Your task to perform on an android device: turn pop-ups off in chrome Image 0: 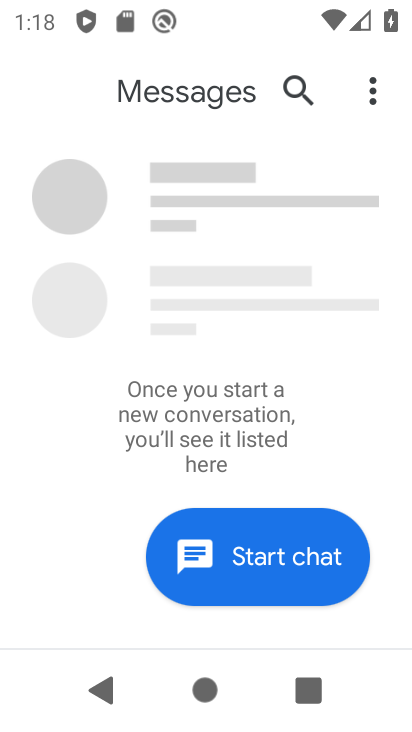
Step 0: press home button
Your task to perform on an android device: turn pop-ups off in chrome Image 1: 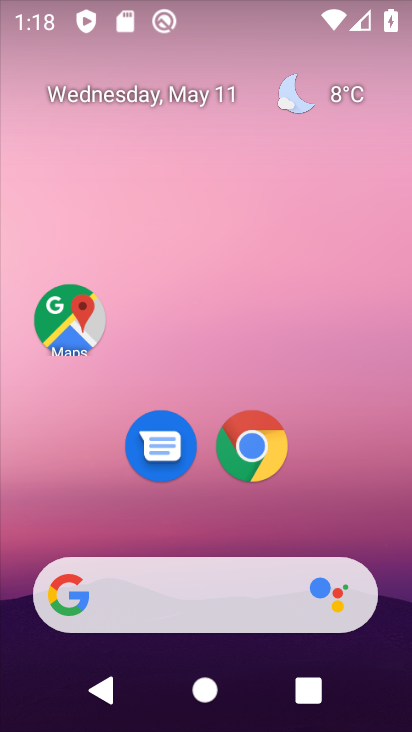
Step 1: drag from (383, 512) to (323, 101)
Your task to perform on an android device: turn pop-ups off in chrome Image 2: 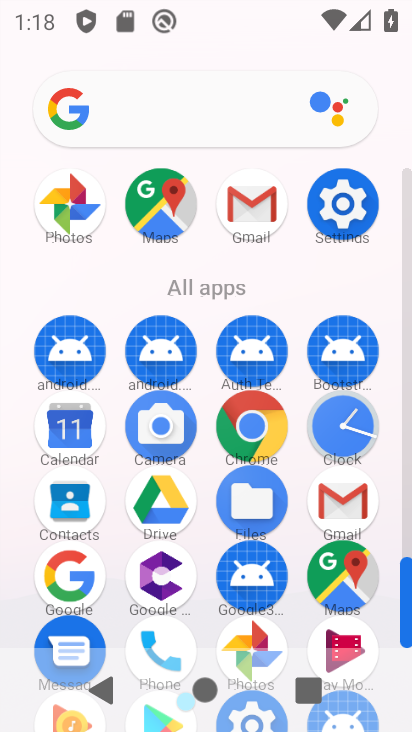
Step 2: click (240, 439)
Your task to perform on an android device: turn pop-ups off in chrome Image 3: 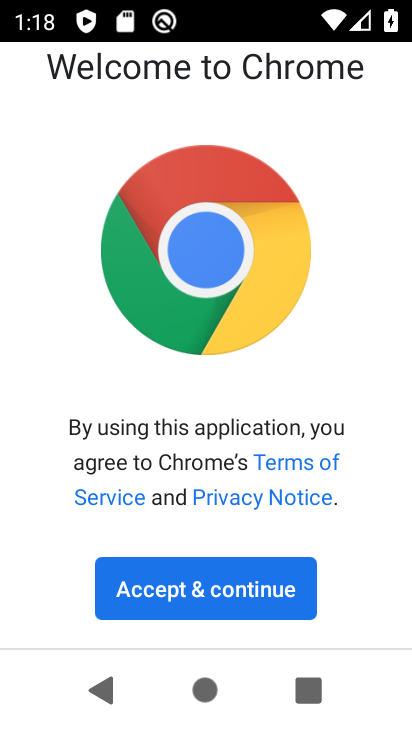
Step 3: click (211, 585)
Your task to perform on an android device: turn pop-ups off in chrome Image 4: 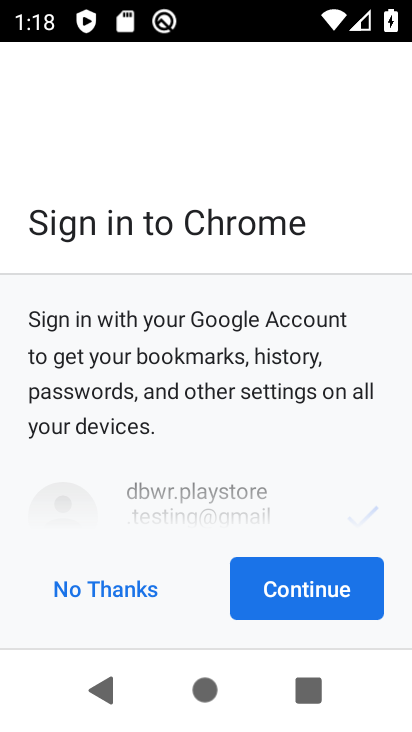
Step 4: click (273, 591)
Your task to perform on an android device: turn pop-ups off in chrome Image 5: 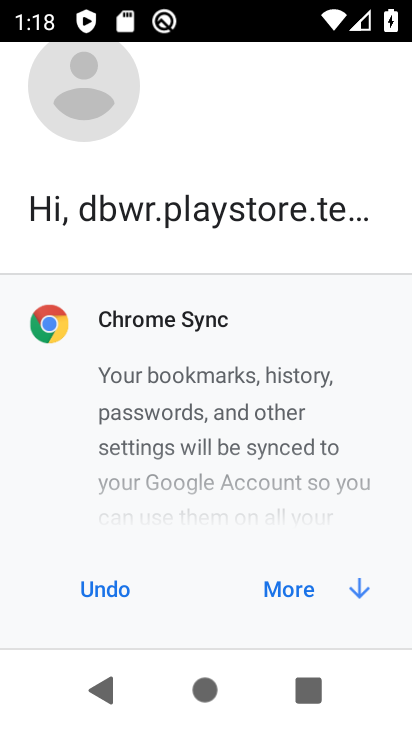
Step 5: click (326, 588)
Your task to perform on an android device: turn pop-ups off in chrome Image 6: 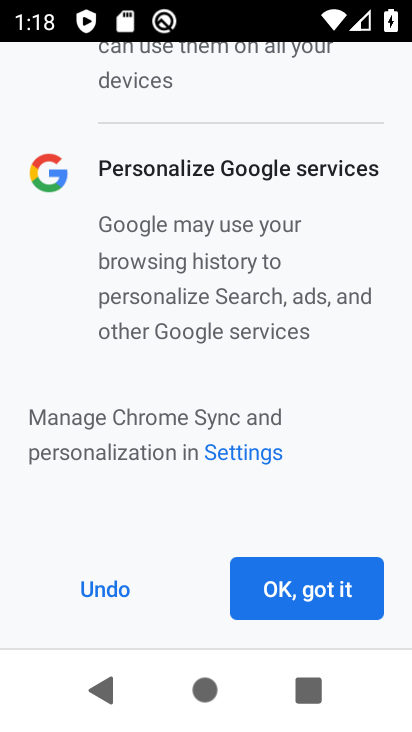
Step 6: click (326, 588)
Your task to perform on an android device: turn pop-ups off in chrome Image 7: 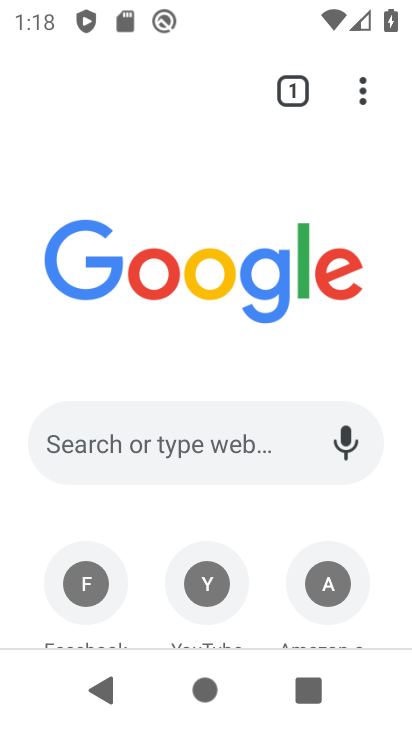
Step 7: drag from (364, 105) to (246, 478)
Your task to perform on an android device: turn pop-ups off in chrome Image 8: 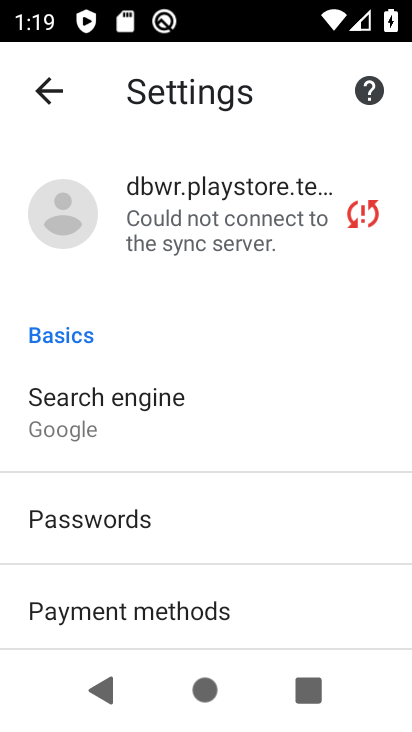
Step 8: drag from (280, 553) to (274, 311)
Your task to perform on an android device: turn pop-ups off in chrome Image 9: 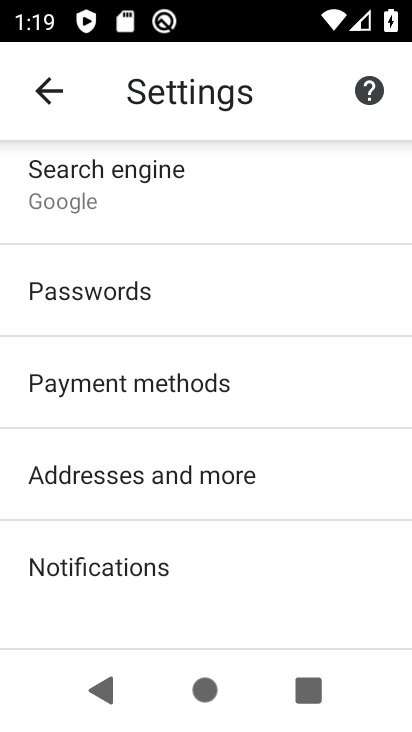
Step 9: drag from (283, 563) to (280, 304)
Your task to perform on an android device: turn pop-ups off in chrome Image 10: 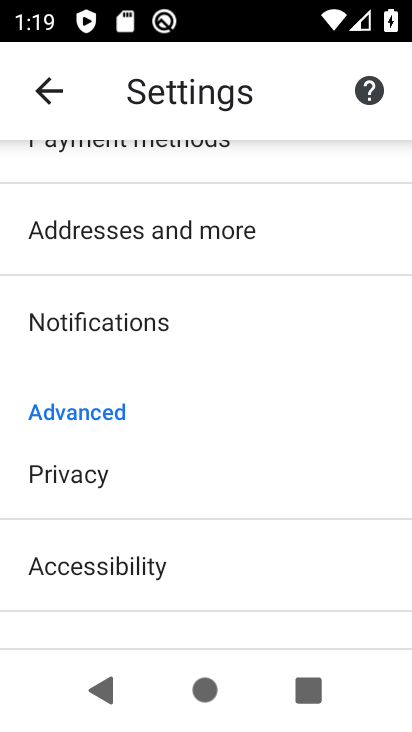
Step 10: drag from (250, 550) to (287, 273)
Your task to perform on an android device: turn pop-ups off in chrome Image 11: 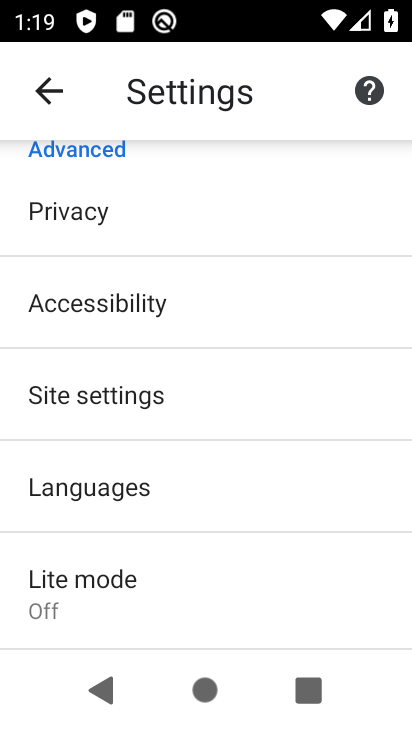
Step 11: click (236, 405)
Your task to perform on an android device: turn pop-ups off in chrome Image 12: 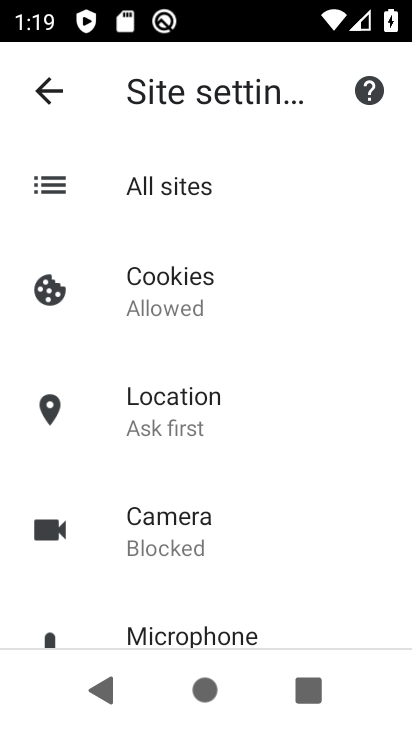
Step 12: drag from (292, 599) to (300, 275)
Your task to perform on an android device: turn pop-ups off in chrome Image 13: 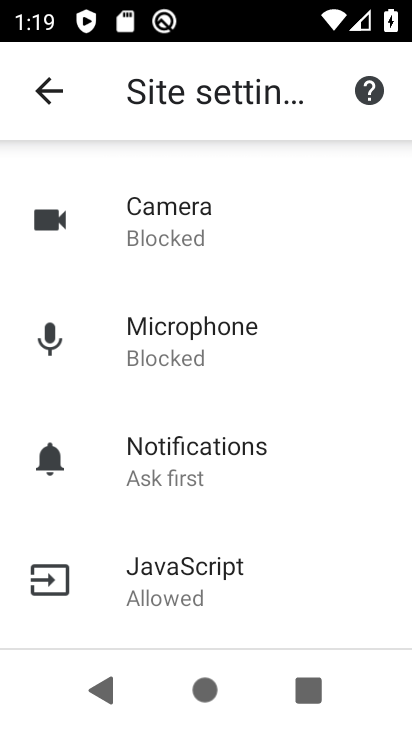
Step 13: drag from (304, 544) to (297, 227)
Your task to perform on an android device: turn pop-ups off in chrome Image 14: 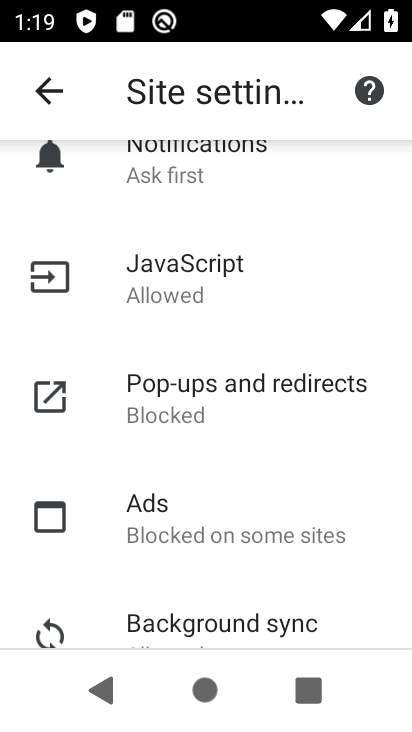
Step 14: click (304, 385)
Your task to perform on an android device: turn pop-ups off in chrome Image 15: 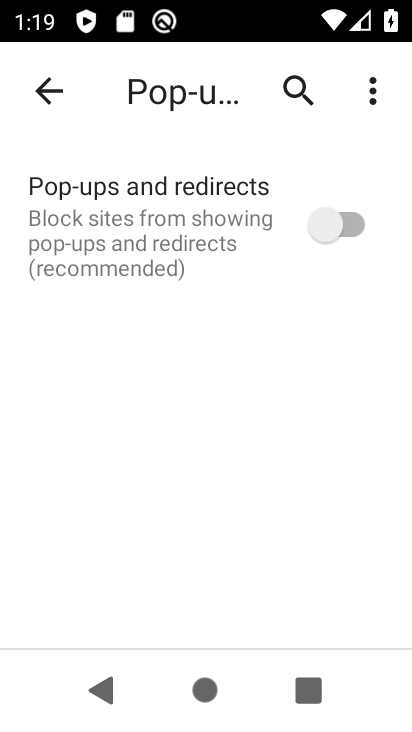
Step 15: task complete